Your task to perform on an android device: Go to internet settings Image 0: 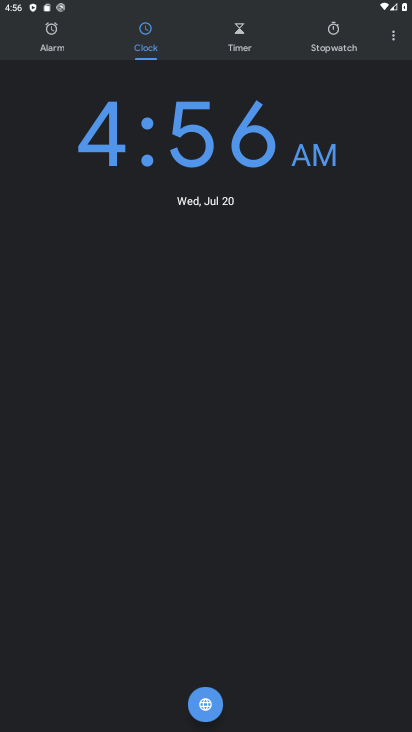
Step 0: press home button
Your task to perform on an android device: Go to internet settings Image 1: 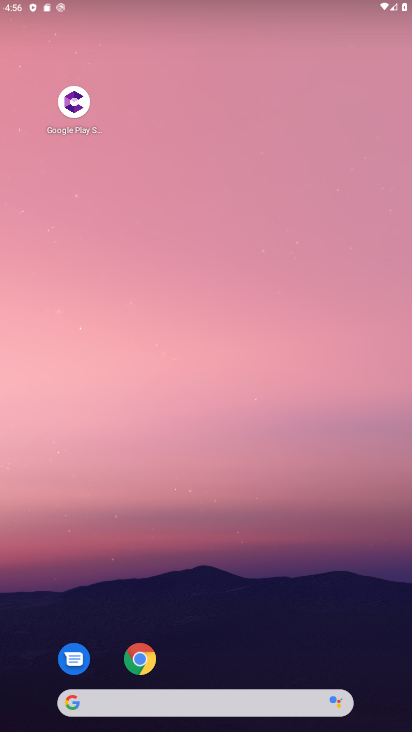
Step 1: drag from (162, 592) to (200, 151)
Your task to perform on an android device: Go to internet settings Image 2: 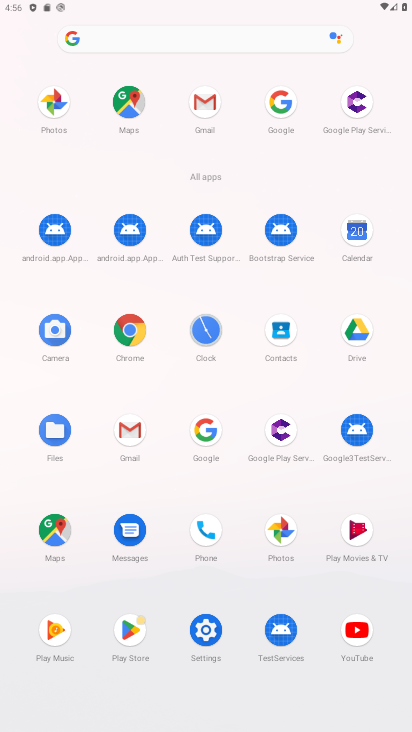
Step 2: click (220, 629)
Your task to perform on an android device: Go to internet settings Image 3: 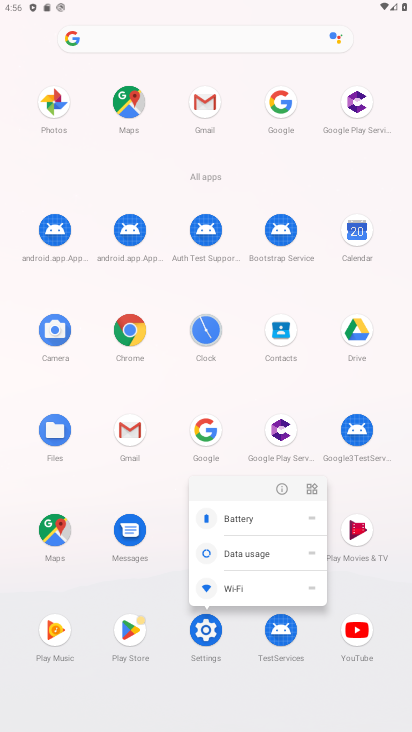
Step 3: click (209, 625)
Your task to perform on an android device: Go to internet settings Image 4: 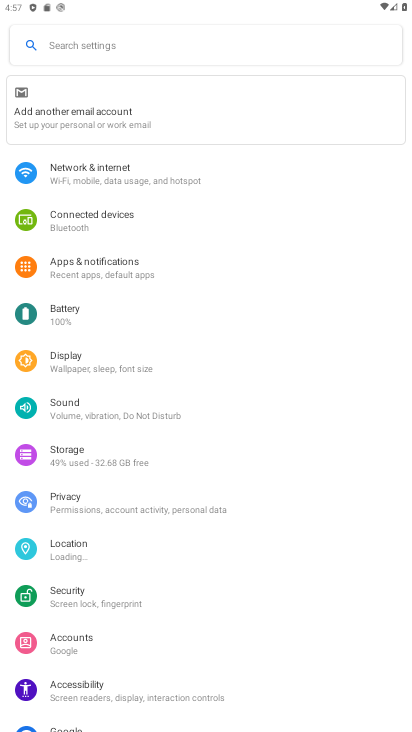
Step 4: click (109, 176)
Your task to perform on an android device: Go to internet settings Image 5: 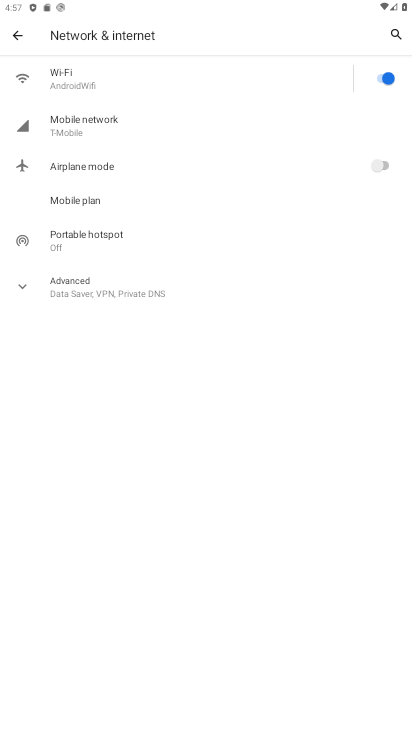
Step 5: click (44, 295)
Your task to perform on an android device: Go to internet settings Image 6: 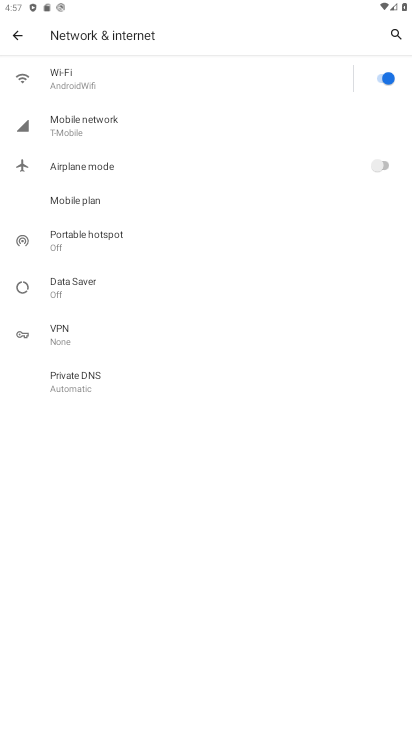
Step 6: task complete